Your task to perform on an android device: Is it going to rain tomorrow? Image 0: 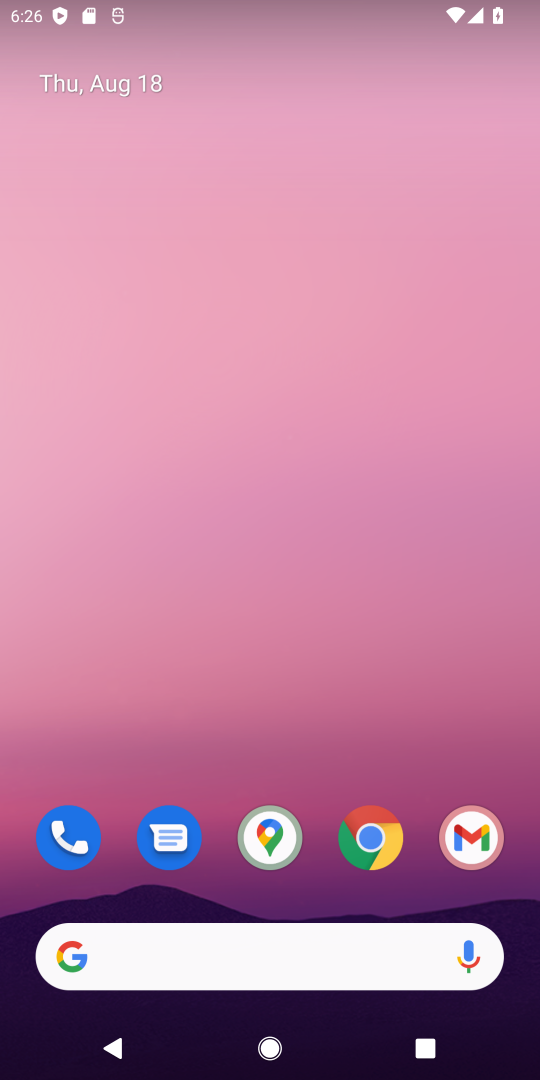
Step 0: press home button
Your task to perform on an android device: Is it going to rain tomorrow? Image 1: 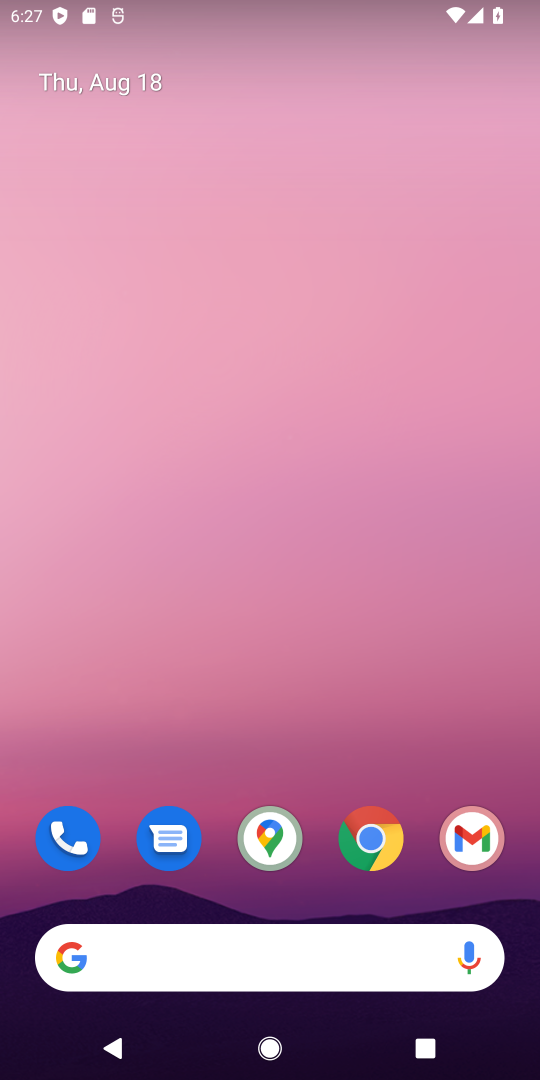
Step 1: click (60, 970)
Your task to perform on an android device: Is it going to rain tomorrow? Image 2: 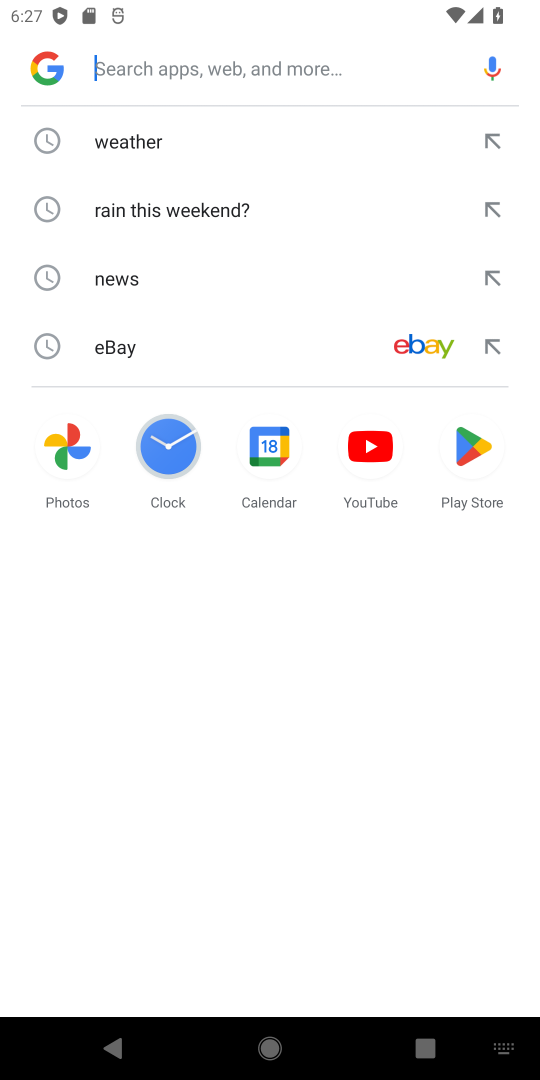
Step 2: type "rain tomorrow?"
Your task to perform on an android device: Is it going to rain tomorrow? Image 3: 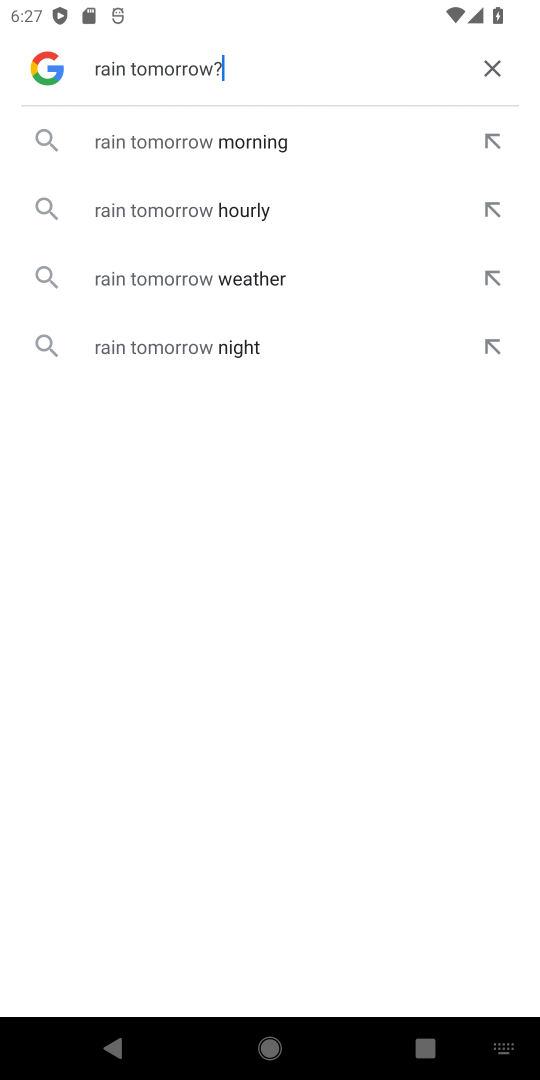
Step 3: press enter
Your task to perform on an android device: Is it going to rain tomorrow? Image 4: 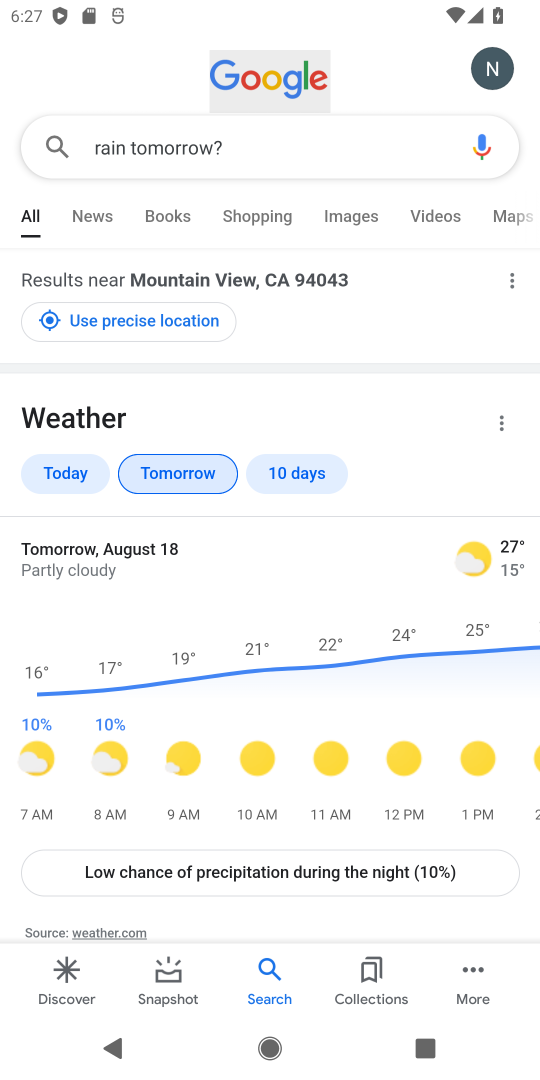
Step 4: task complete